Your task to perform on an android device: allow cookies in the chrome app Image 0: 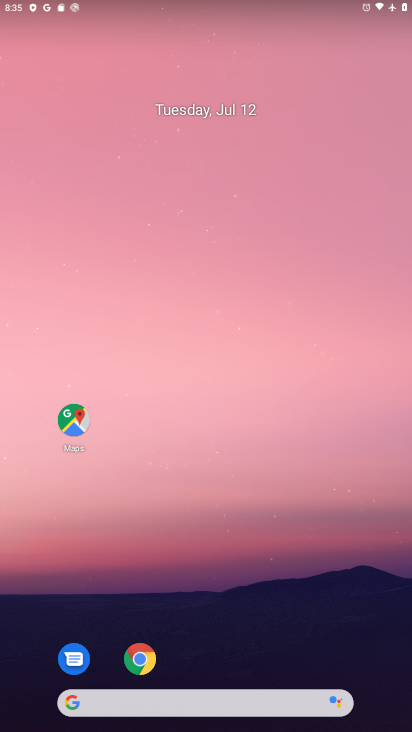
Step 0: drag from (346, 712) to (193, 191)
Your task to perform on an android device: allow cookies in the chrome app Image 1: 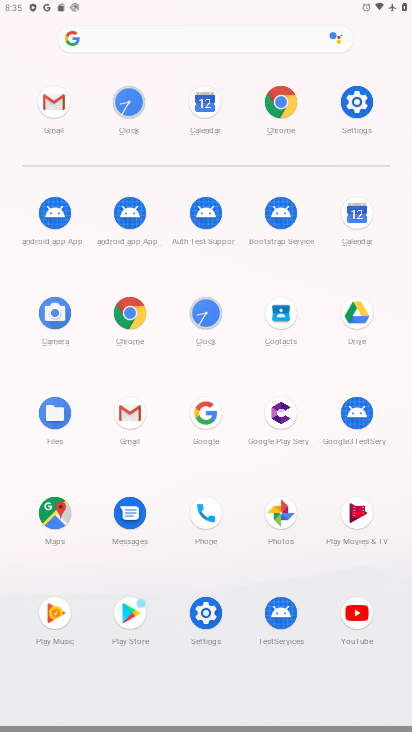
Step 1: click (288, 97)
Your task to perform on an android device: allow cookies in the chrome app Image 2: 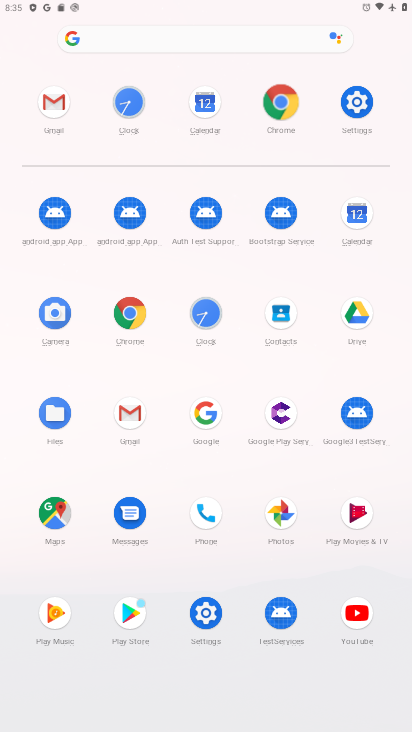
Step 2: click (288, 97)
Your task to perform on an android device: allow cookies in the chrome app Image 3: 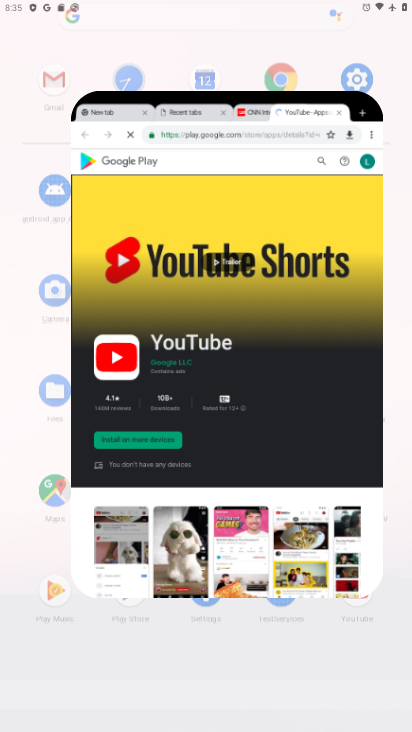
Step 3: click (287, 96)
Your task to perform on an android device: allow cookies in the chrome app Image 4: 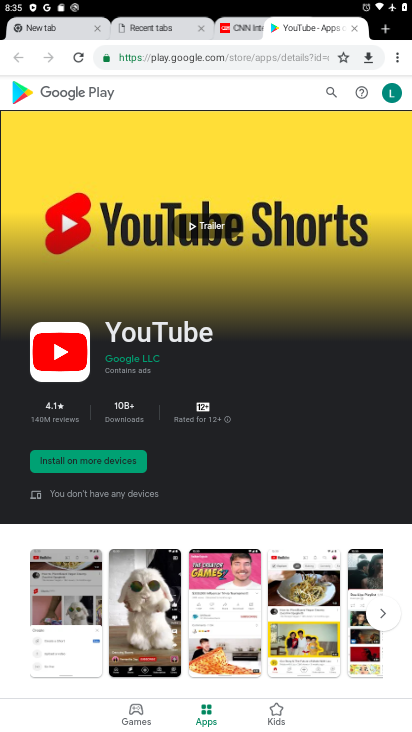
Step 4: click (395, 55)
Your task to perform on an android device: allow cookies in the chrome app Image 5: 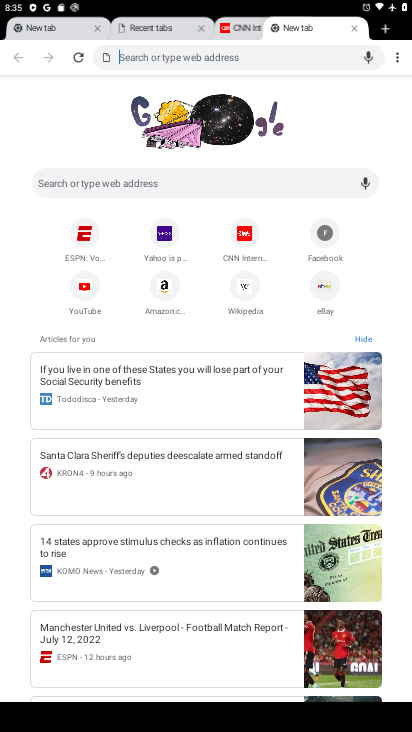
Step 5: drag from (394, 55) to (273, 261)
Your task to perform on an android device: allow cookies in the chrome app Image 6: 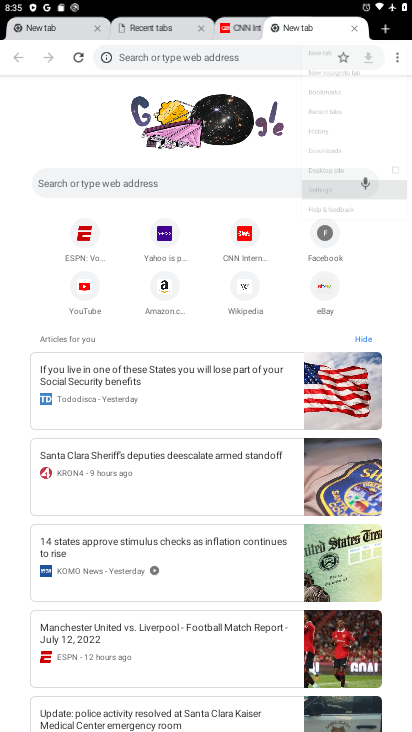
Step 6: click (273, 263)
Your task to perform on an android device: allow cookies in the chrome app Image 7: 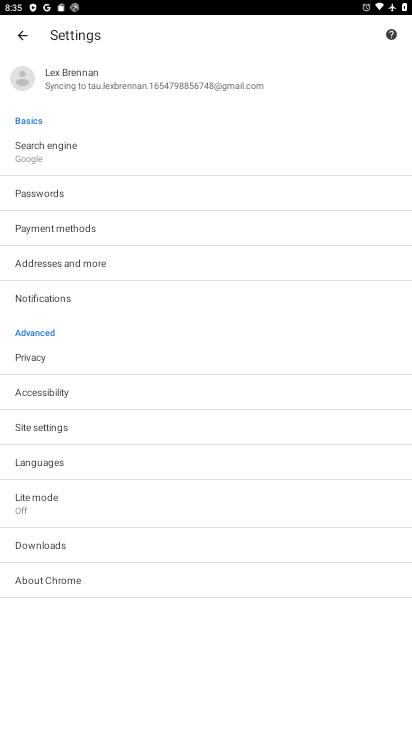
Step 7: click (39, 427)
Your task to perform on an android device: allow cookies in the chrome app Image 8: 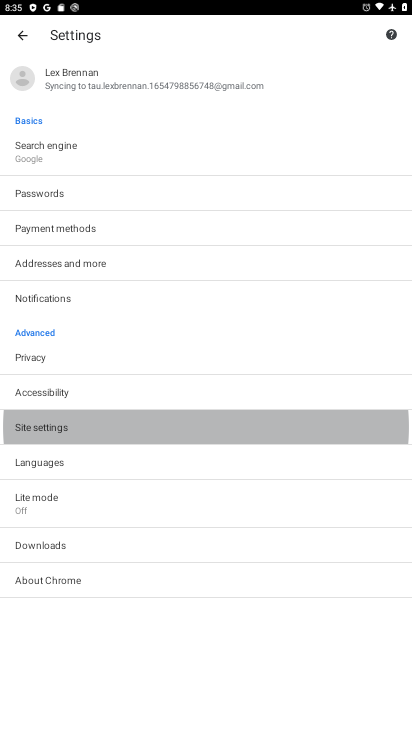
Step 8: click (39, 427)
Your task to perform on an android device: allow cookies in the chrome app Image 9: 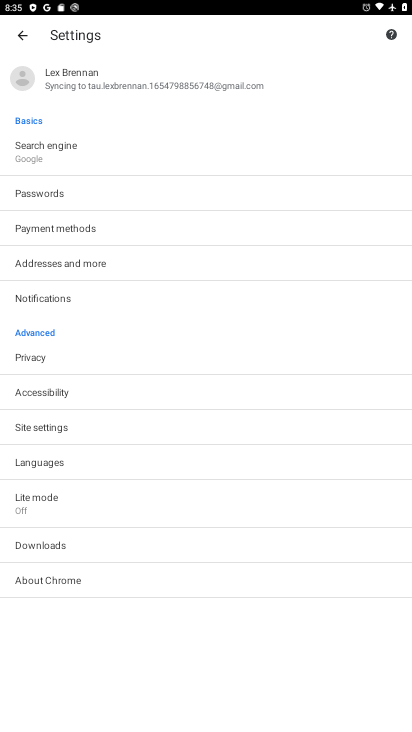
Step 9: click (39, 427)
Your task to perform on an android device: allow cookies in the chrome app Image 10: 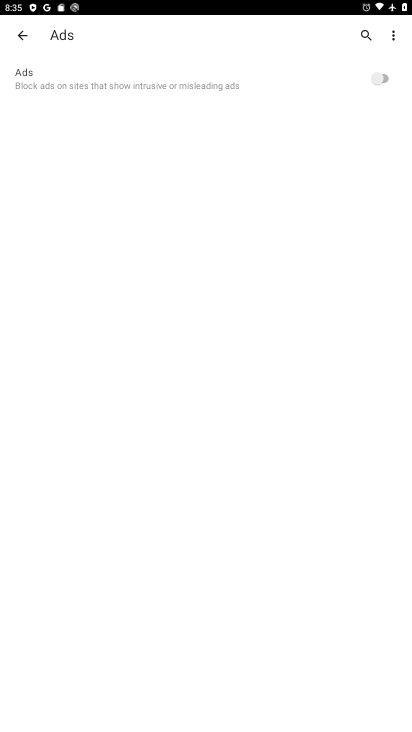
Step 10: click (23, 31)
Your task to perform on an android device: allow cookies in the chrome app Image 11: 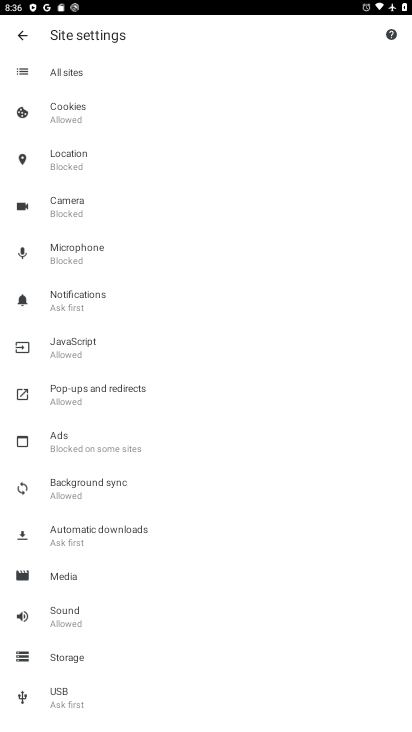
Step 11: click (69, 106)
Your task to perform on an android device: allow cookies in the chrome app Image 12: 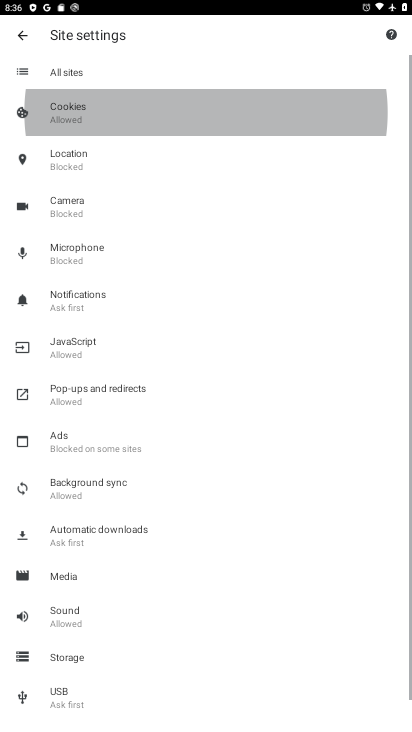
Step 12: click (68, 105)
Your task to perform on an android device: allow cookies in the chrome app Image 13: 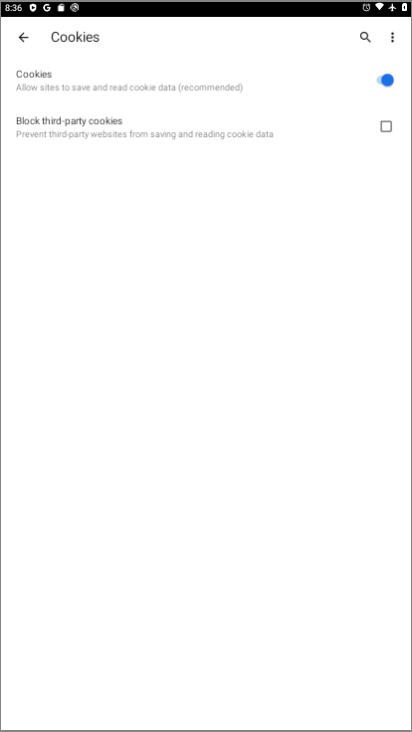
Step 13: click (68, 105)
Your task to perform on an android device: allow cookies in the chrome app Image 14: 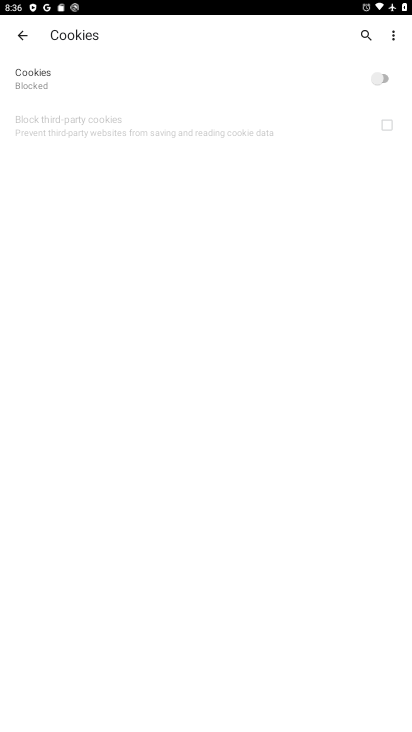
Step 14: click (380, 67)
Your task to perform on an android device: allow cookies in the chrome app Image 15: 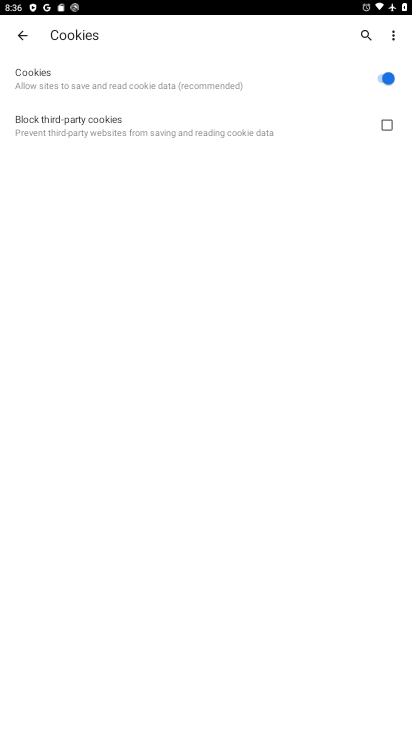
Step 15: task complete